Your task to perform on an android device: change the upload size in google photos Image 0: 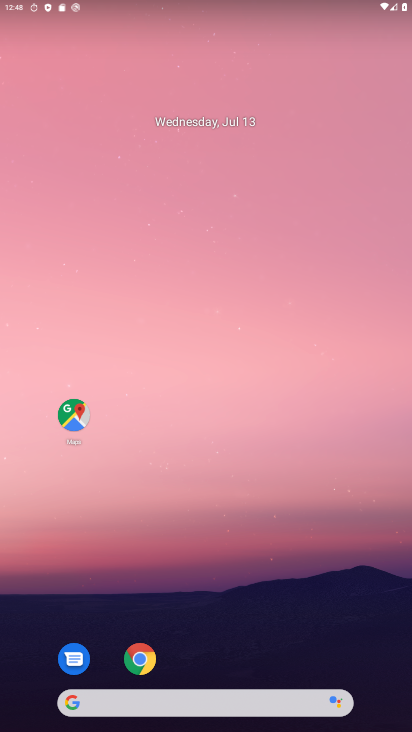
Step 0: drag from (137, 618) to (282, 131)
Your task to perform on an android device: change the upload size in google photos Image 1: 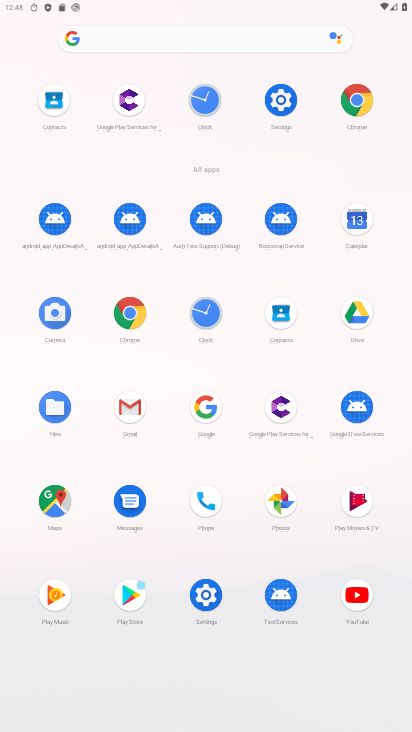
Step 1: click (279, 512)
Your task to perform on an android device: change the upload size in google photos Image 2: 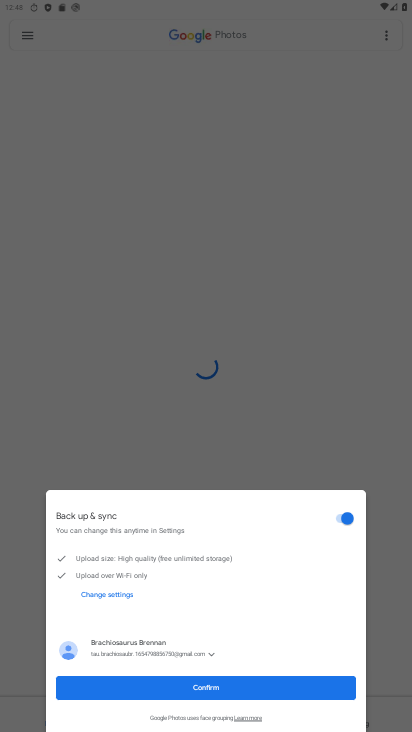
Step 2: click (290, 690)
Your task to perform on an android device: change the upload size in google photos Image 3: 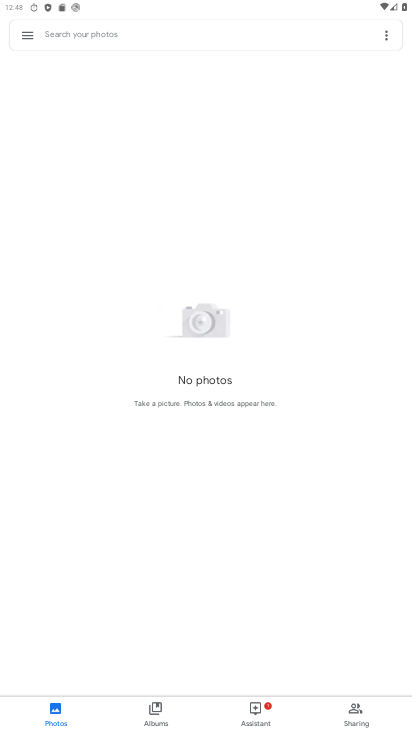
Step 3: click (17, 36)
Your task to perform on an android device: change the upload size in google photos Image 4: 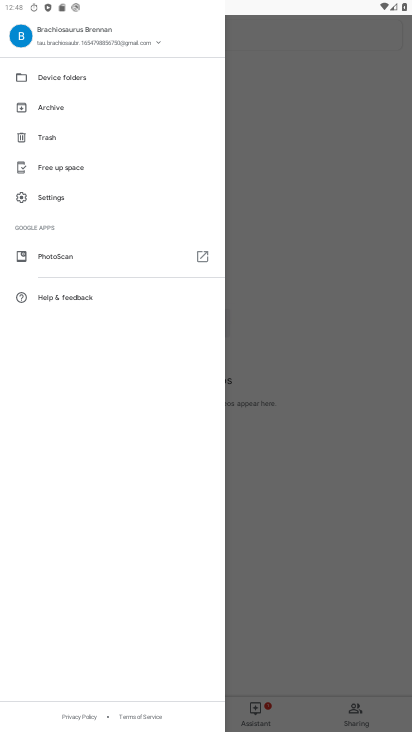
Step 4: click (58, 206)
Your task to perform on an android device: change the upload size in google photos Image 5: 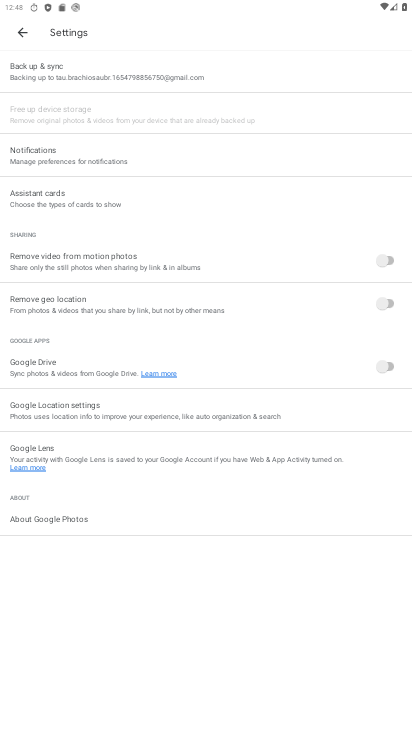
Step 5: click (110, 77)
Your task to perform on an android device: change the upload size in google photos Image 6: 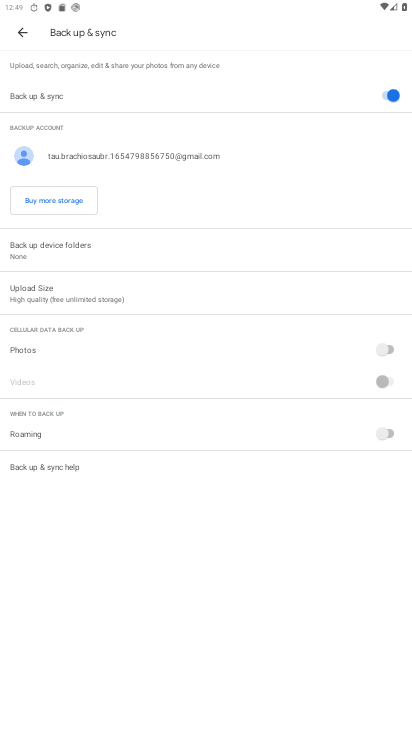
Step 6: click (47, 296)
Your task to perform on an android device: change the upload size in google photos Image 7: 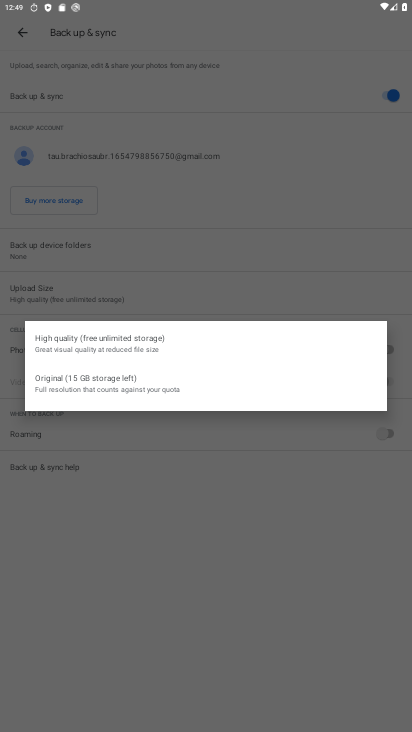
Step 7: click (85, 384)
Your task to perform on an android device: change the upload size in google photos Image 8: 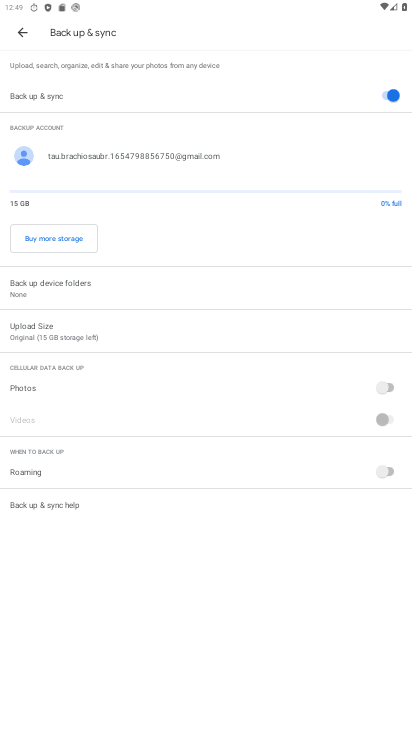
Step 8: task complete